Your task to perform on an android device: Go to Google Image 0: 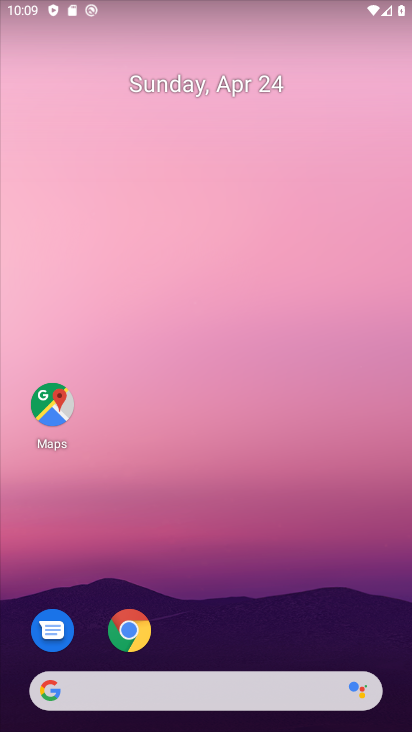
Step 0: drag from (214, 463) to (210, 198)
Your task to perform on an android device: Go to Google Image 1: 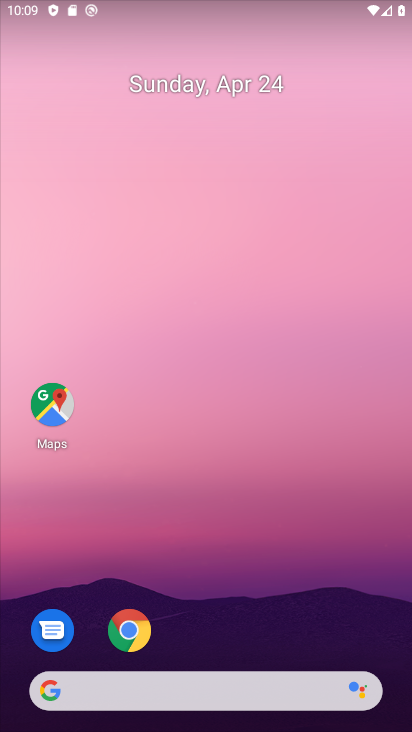
Step 1: drag from (222, 585) to (227, 235)
Your task to perform on an android device: Go to Google Image 2: 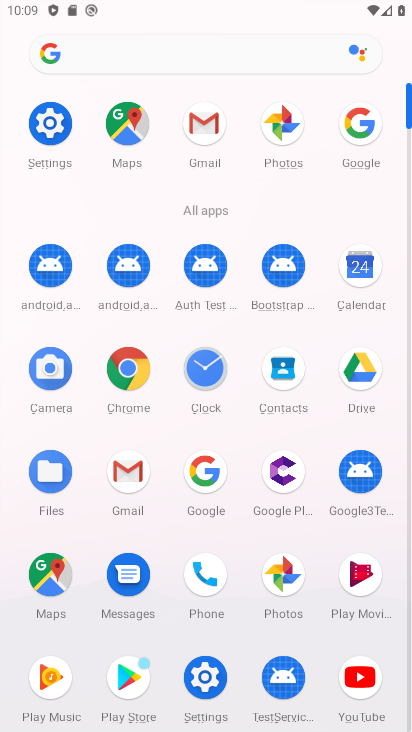
Step 2: click (343, 129)
Your task to perform on an android device: Go to Google Image 3: 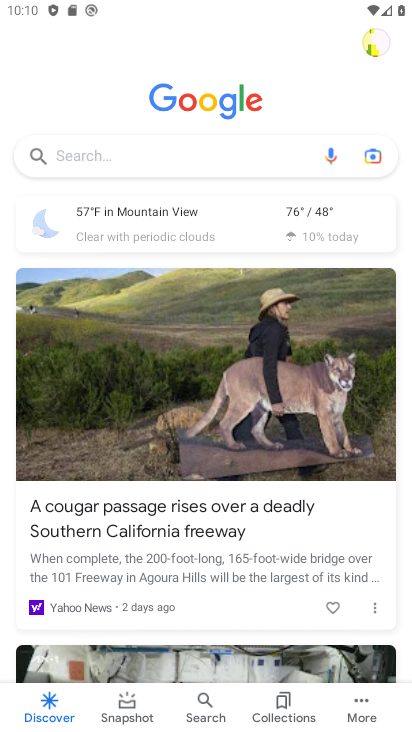
Step 3: task complete